Your task to perform on an android device: Show me the alarms in the clock app Image 0: 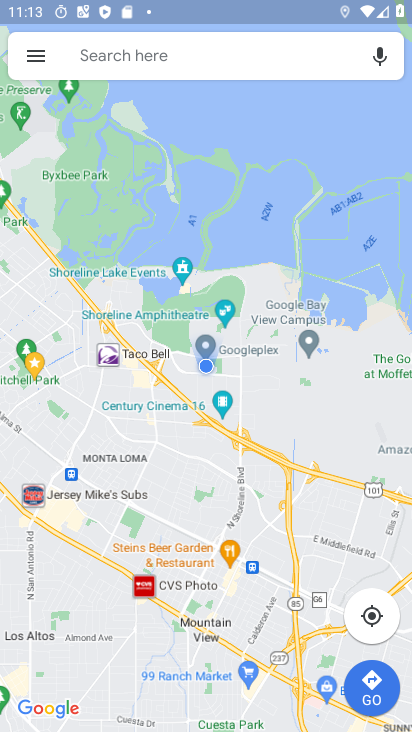
Step 0: press home button
Your task to perform on an android device: Show me the alarms in the clock app Image 1: 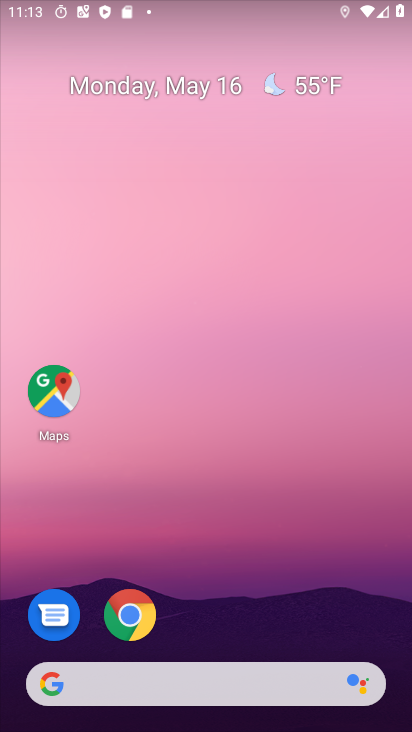
Step 1: drag from (261, 592) to (281, 90)
Your task to perform on an android device: Show me the alarms in the clock app Image 2: 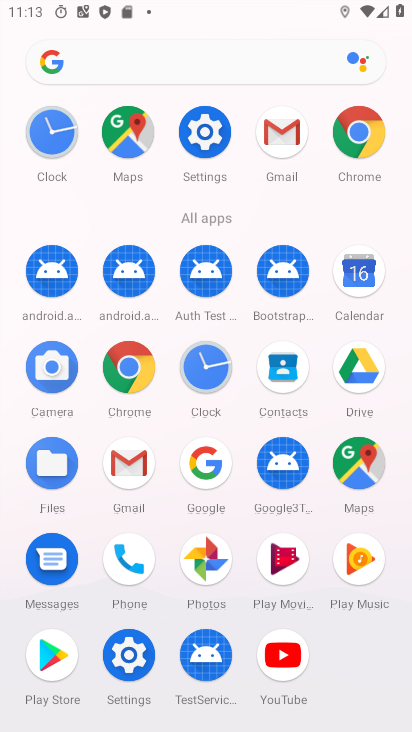
Step 2: click (205, 362)
Your task to perform on an android device: Show me the alarms in the clock app Image 3: 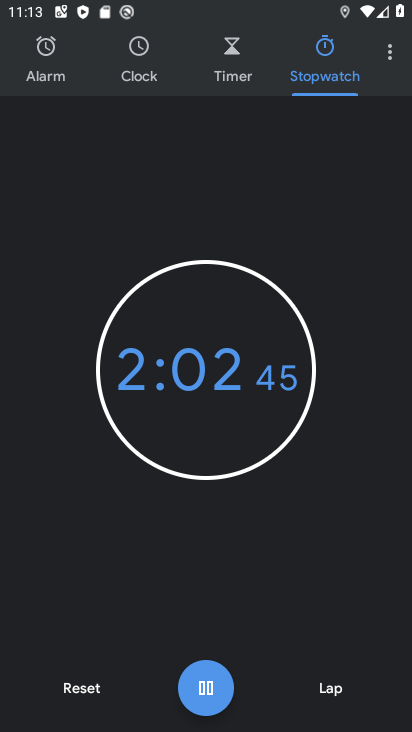
Step 3: click (50, 56)
Your task to perform on an android device: Show me the alarms in the clock app Image 4: 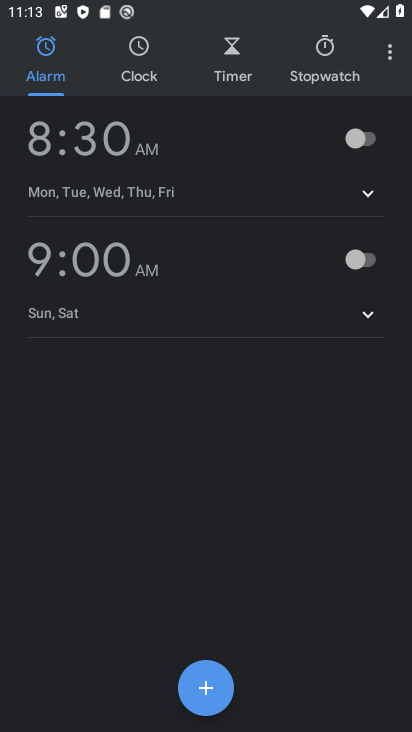
Step 4: task complete